Your task to perform on an android device: Show the shopping cart on bestbuy.com. Search for apple airpods pro on bestbuy.com, select the first entry, add it to the cart, then select checkout. Image 0: 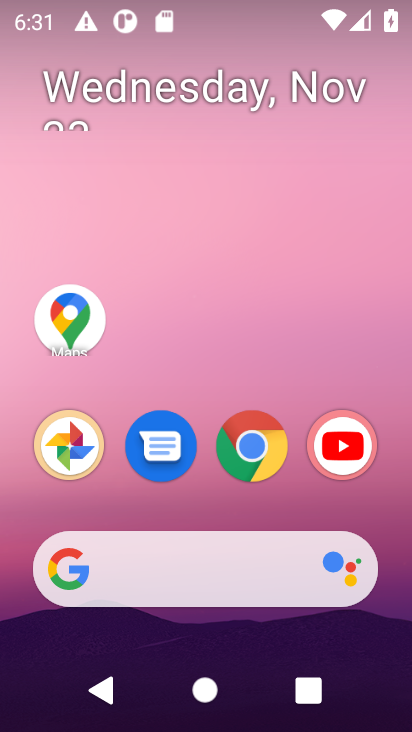
Step 0: click (148, 555)
Your task to perform on an android device: Show the shopping cart on bestbuy.com. Search for apple airpods pro on bestbuy.com, select the first entry, add it to the cart, then select checkout. Image 1: 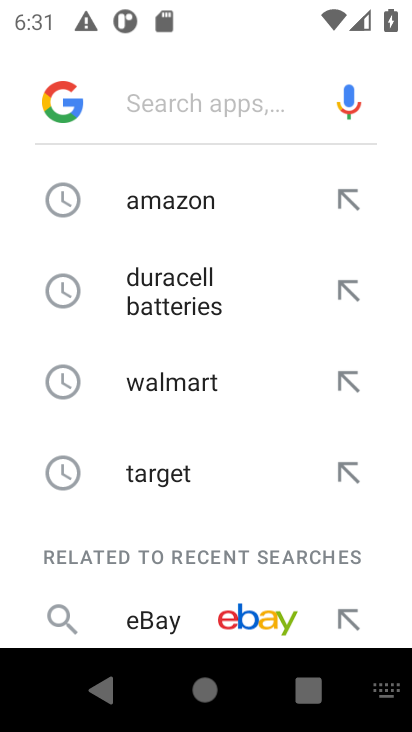
Step 1: type "bestbuy.com"
Your task to perform on an android device: Show the shopping cart on bestbuy.com. Search for apple airpods pro on bestbuy.com, select the first entry, add it to the cart, then select checkout. Image 2: 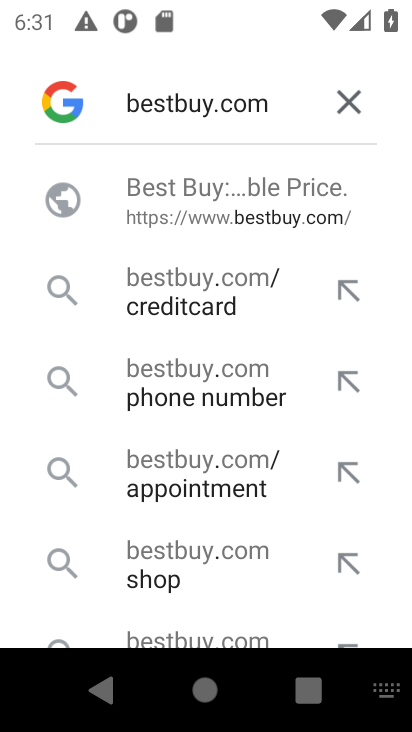
Step 2: click (223, 222)
Your task to perform on an android device: Show the shopping cart on bestbuy.com. Search for apple airpods pro on bestbuy.com, select the first entry, add it to the cart, then select checkout. Image 3: 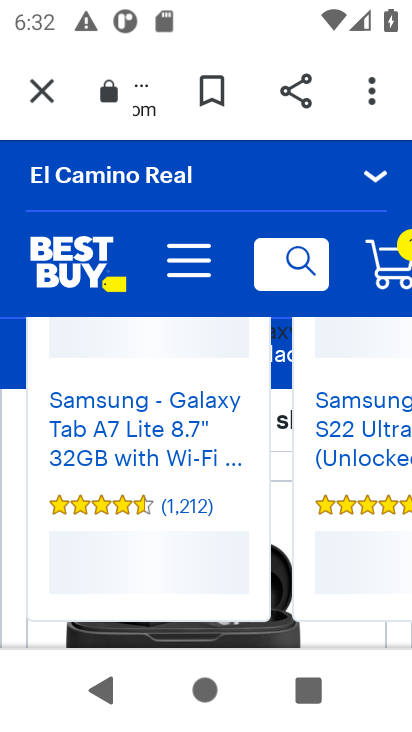
Step 3: click (281, 272)
Your task to perform on an android device: Show the shopping cart on bestbuy.com. Search for apple airpods pro on bestbuy.com, select the first entry, add it to the cart, then select checkout. Image 4: 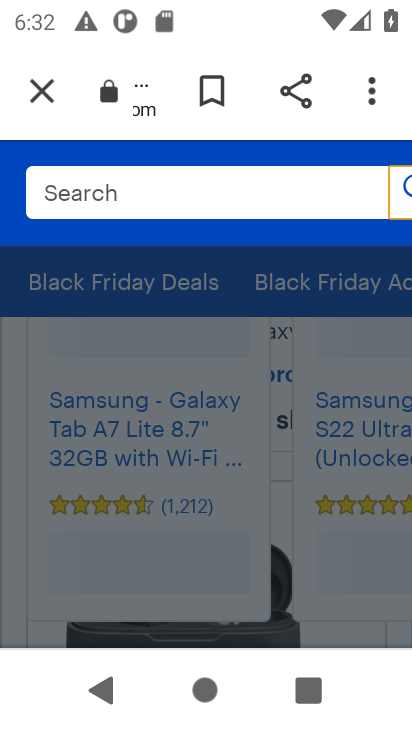
Step 4: type "apple airpod pro"
Your task to perform on an android device: Show the shopping cart on bestbuy.com. Search for apple airpods pro on bestbuy.com, select the first entry, add it to the cart, then select checkout. Image 5: 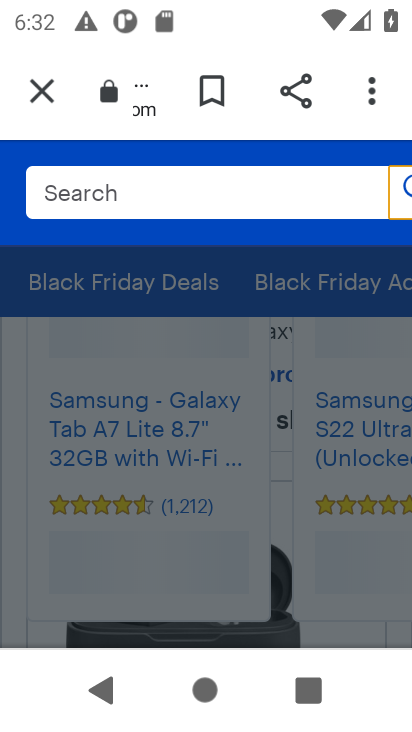
Step 5: click (202, 199)
Your task to perform on an android device: Show the shopping cart on bestbuy.com. Search for apple airpods pro on bestbuy.com, select the first entry, add it to the cart, then select checkout. Image 6: 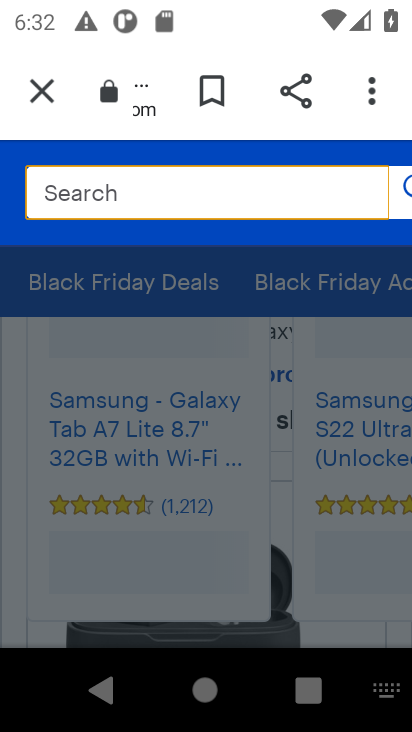
Step 6: type "apple airpod pro"
Your task to perform on an android device: Show the shopping cart on bestbuy.com. Search for apple airpods pro on bestbuy.com, select the first entry, add it to the cart, then select checkout. Image 7: 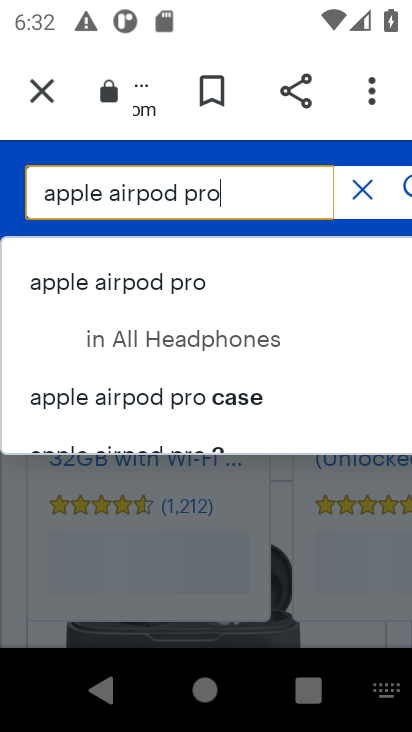
Step 7: click (214, 299)
Your task to perform on an android device: Show the shopping cart on bestbuy.com. Search for apple airpods pro on bestbuy.com, select the first entry, add it to the cart, then select checkout. Image 8: 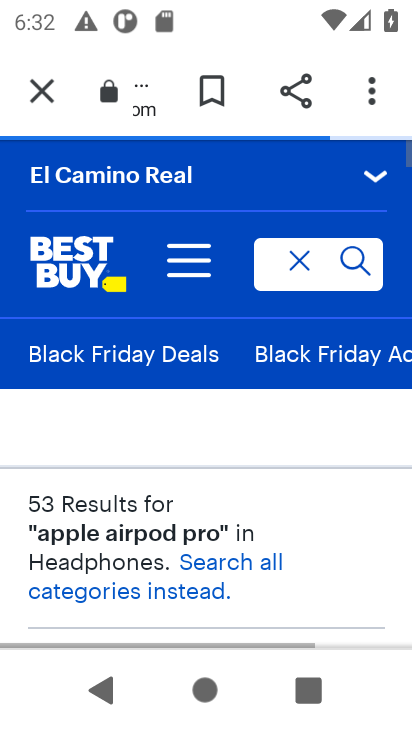
Step 8: drag from (265, 504) to (264, 250)
Your task to perform on an android device: Show the shopping cart on bestbuy.com. Search for apple airpods pro on bestbuy.com, select the first entry, add it to the cart, then select checkout. Image 9: 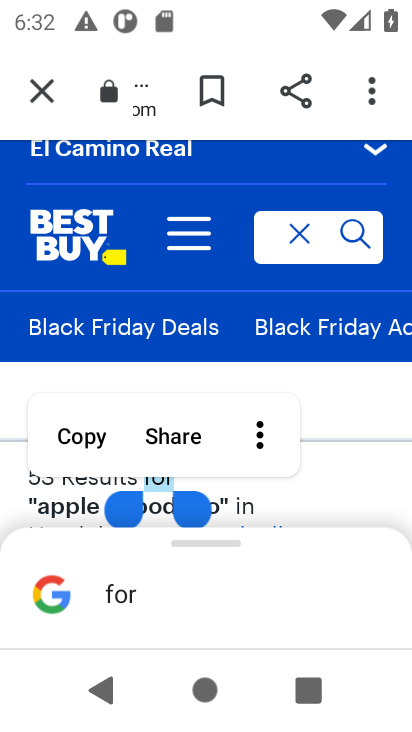
Step 9: click (341, 384)
Your task to perform on an android device: Show the shopping cart on bestbuy.com. Search for apple airpods pro on bestbuy.com, select the first entry, add it to the cart, then select checkout. Image 10: 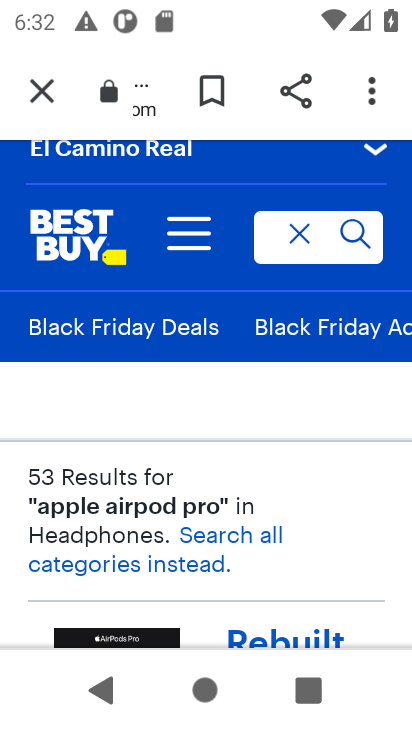
Step 10: drag from (331, 478) to (317, 161)
Your task to perform on an android device: Show the shopping cart on bestbuy.com. Search for apple airpods pro on bestbuy.com, select the first entry, add it to the cart, then select checkout. Image 11: 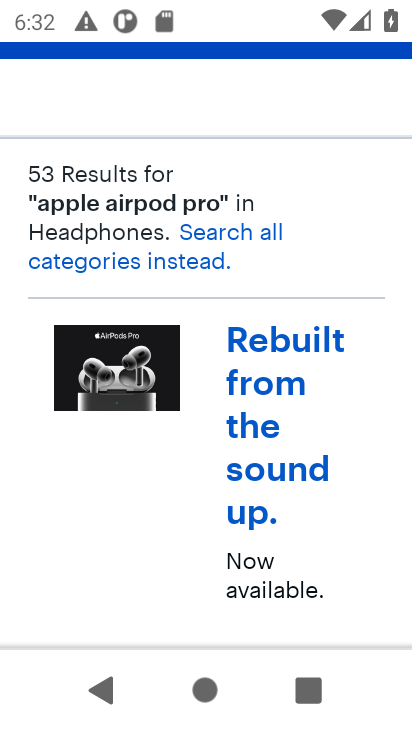
Step 11: click (301, 486)
Your task to perform on an android device: Show the shopping cart on bestbuy.com. Search for apple airpods pro on bestbuy.com, select the first entry, add it to the cart, then select checkout. Image 12: 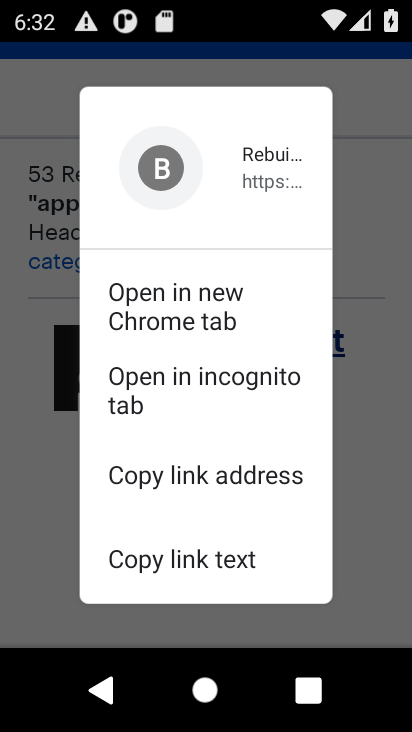
Step 12: click (394, 512)
Your task to perform on an android device: Show the shopping cart on bestbuy.com. Search for apple airpods pro on bestbuy.com, select the first entry, add it to the cart, then select checkout. Image 13: 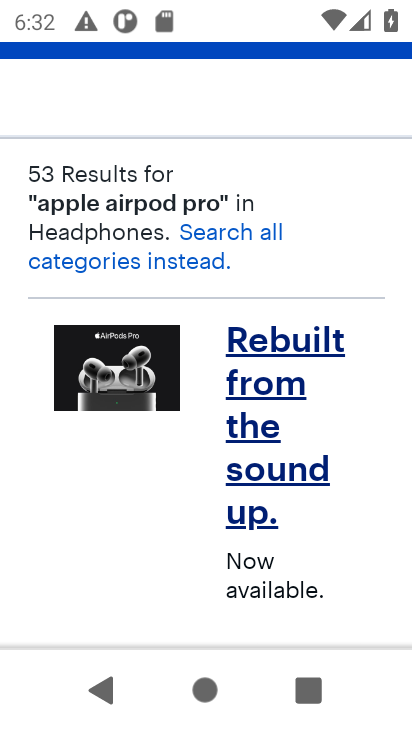
Step 13: click (298, 485)
Your task to perform on an android device: Show the shopping cart on bestbuy.com. Search for apple airpods pro on bestbuy.com, select the first entry, add it to the cart, then select checkout. Image 14: 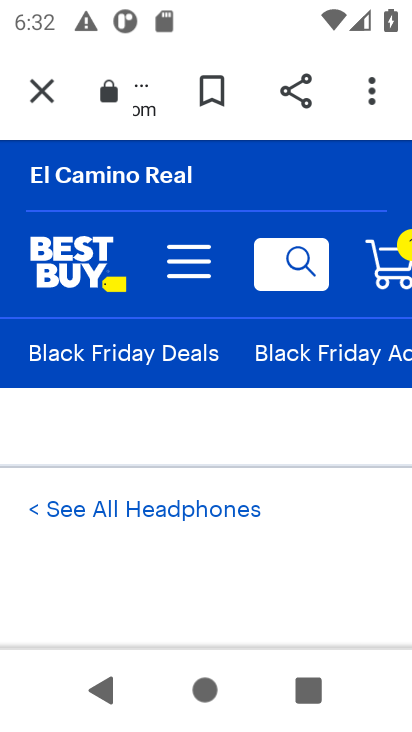
Step 14: drag from (298, 485) to (260, 205)
Your task to perform on an android device: Show the shopping cart on bestbuy.com. Search for apple airpods pro on bestbuy.com, select the first entry, add it to the cart, then select checkout. Image 15: 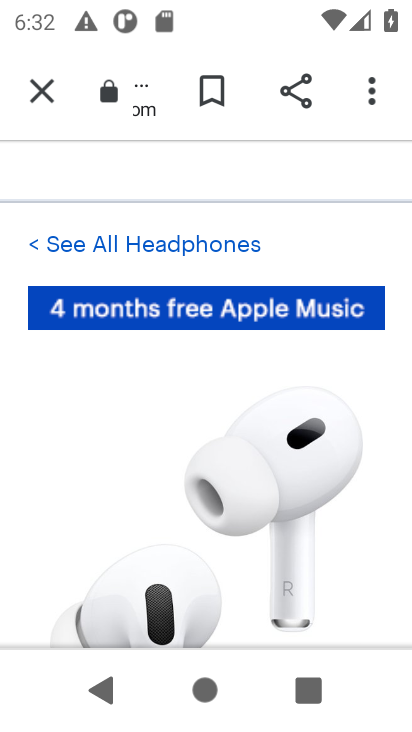
Step 15: drag from (104, 540) to (159, 217)
Your task to perform on an android device: Show the shopping cart on bestbuy.com. Search for apple airpods pro on bestbuy.com, select the first entry, add it to the cart, then select checkout. Image 16: 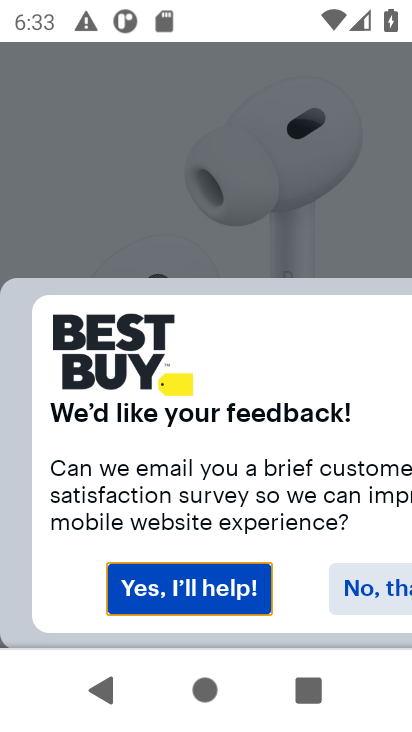
Step 16: click (360, 590)
Your task to perform on an android device: Show the shopping cart on bestbuy.com. Search for apple airpods pro on bestbuy.com, select the first entry, add it to the cart, then select checkout. Image 17: 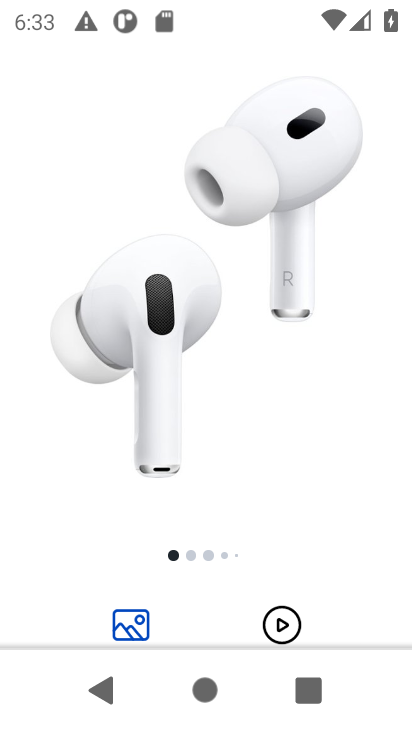
Step 17: click (360, 590)
Your task to perform on an android device: Show the shopping cart on bestbuy.com. Search for apple airpods pro on bestbuy.com, select the first entry, add it to the cart, then select checkout. Image 18: 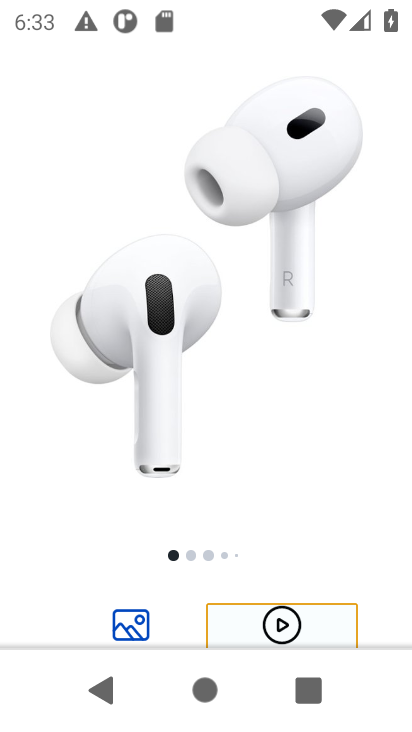
Step 18: task complete